Your task to perform on an android device: set default search engine in the chrome app Image 0: 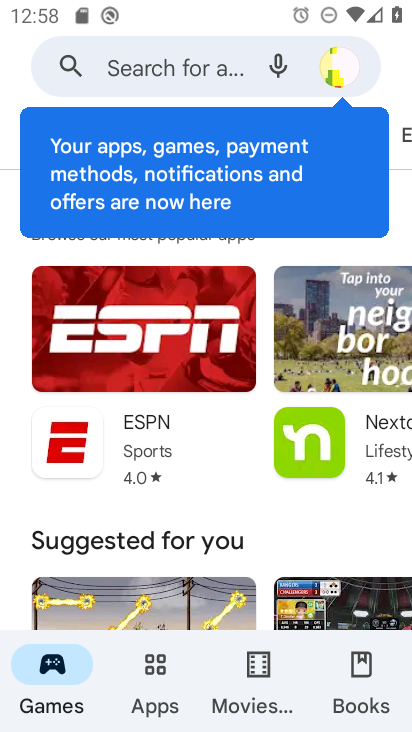
Step 0: press home button
Your task to perform on an android device: set default search engine in the chrome app Image 1: 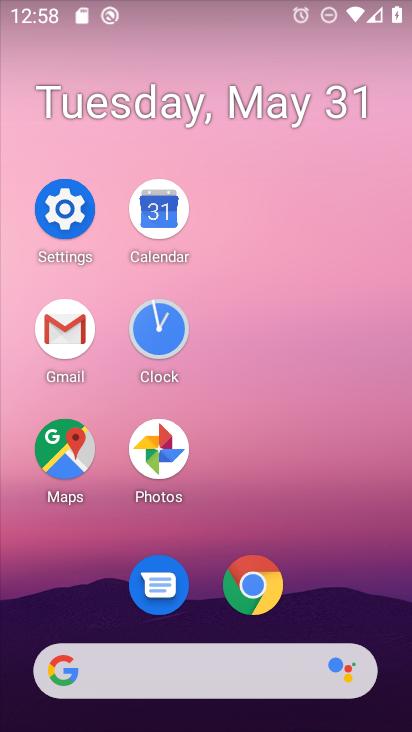
Step 1: click (247, 584)
Your task to perform on an android device: set default search engine in the chrome app Image 2: 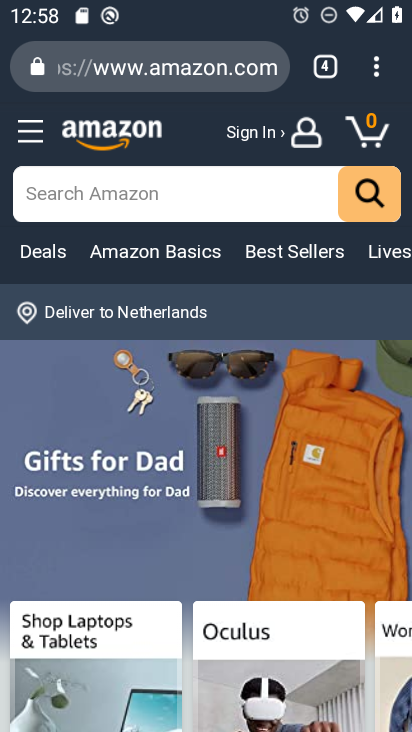
Step 2: click (376, 75)
Your task to perform on an android device: set default search engine in the chrome app Image 3: 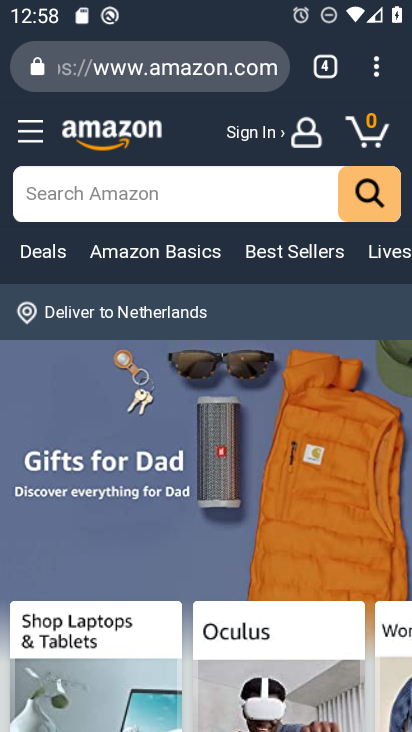
Step 3: click (372, 75)
Your task to perform on an android device: set default search engine in the chrome app Image 4: 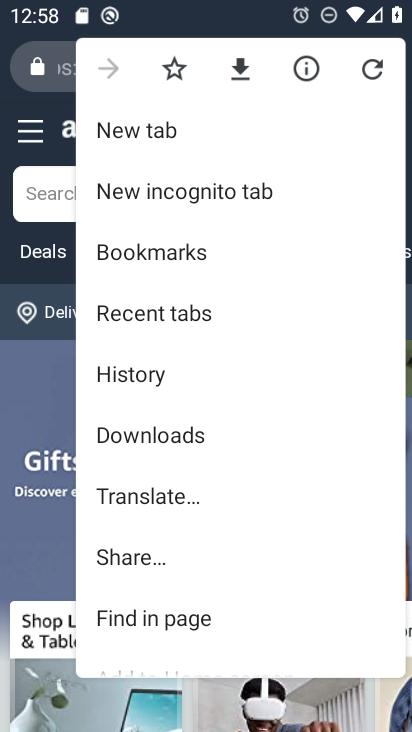
Step 4: drag from (321, 487) to (371, 176)
Your task to perform on an android device: set default search engine in the chrome app Image 5: 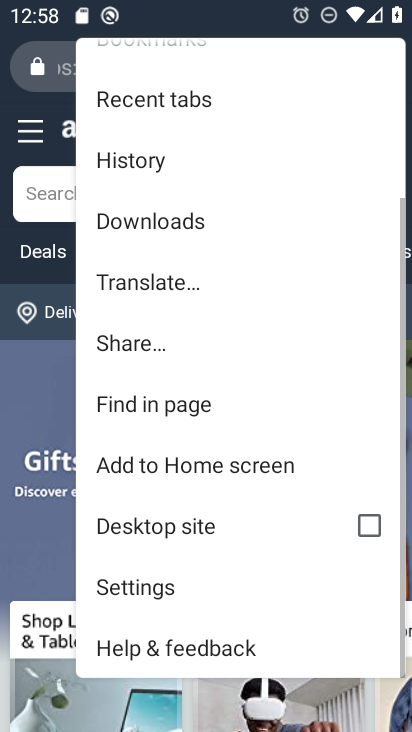
Step 5: click (171, 582)
Your task to perform on an android device: set default search engine in the chrome app Image 6: 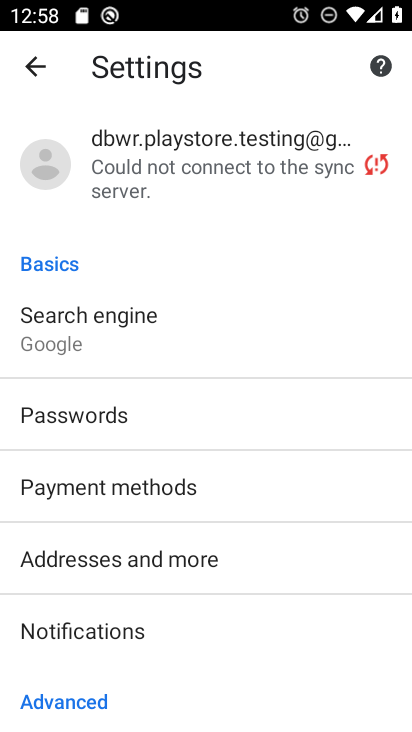
Step 6: drag from (233, 631) to (248, 336)
Your task to perform on an android device: set default search engine in the chrome app Image 7: 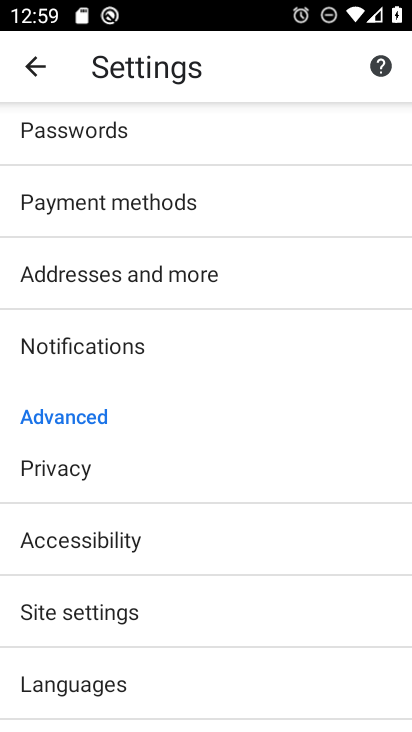
Step 7: drag from (211, 622) to (223, 302)
Your task to perform on an android device: set default search engine in the chrome app Image 8: 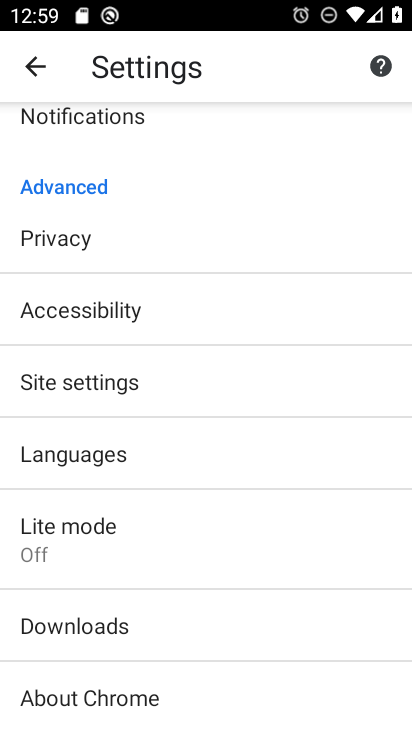
Step 8: drag from (251, 190) to (276, 643)
Your task to perform on an android device: set default search engine in the chrome app Image 9: 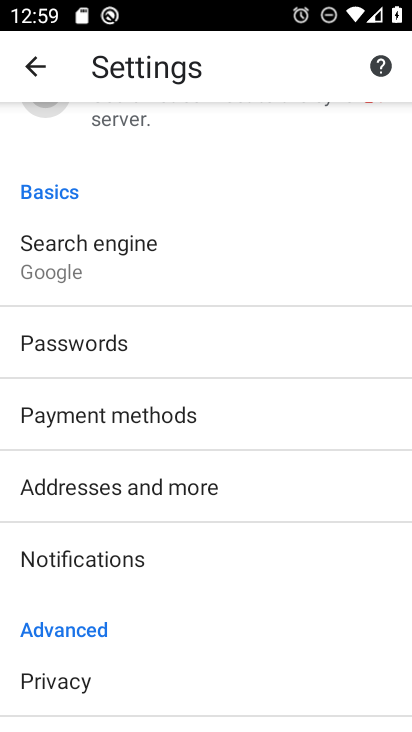
Step 9: click (253, 227)
Your task to perform on an android device: set default search engine in the chrome app Image 10: 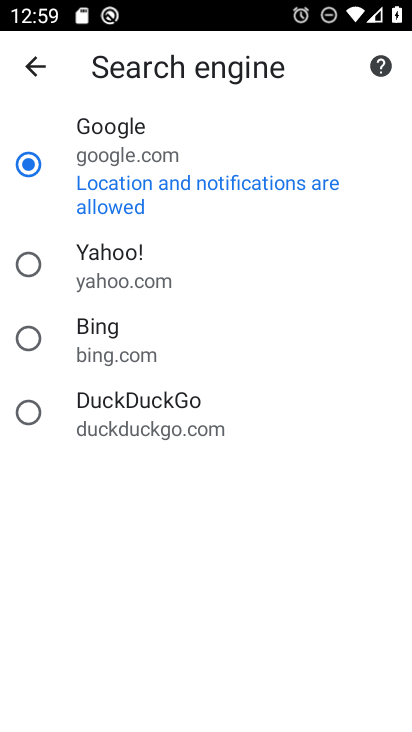
Step 10: task complete